Your task to perform on an android device: open the mobile data screen to see how much data has been used Image 0: 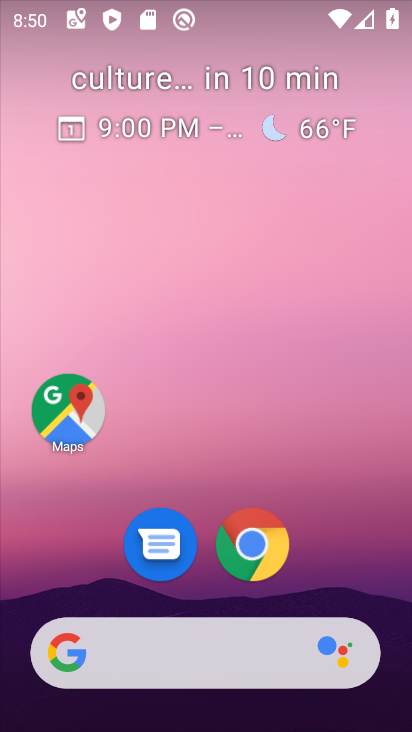
Step 0: drag from (226, 598) to (327, 17)
Your task to perform on an android device: open the mobile data screen to see how much data has been used Image 1: 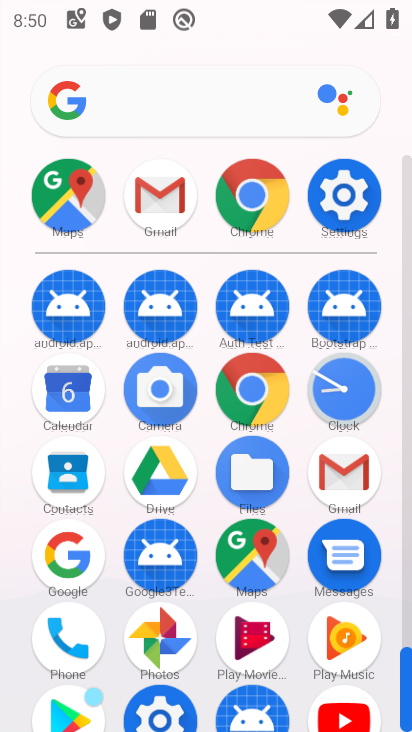
Step 1: click (337, 194)
Your task to perform on an android device: open the mobile data screen to see how much data has been used Image 2: 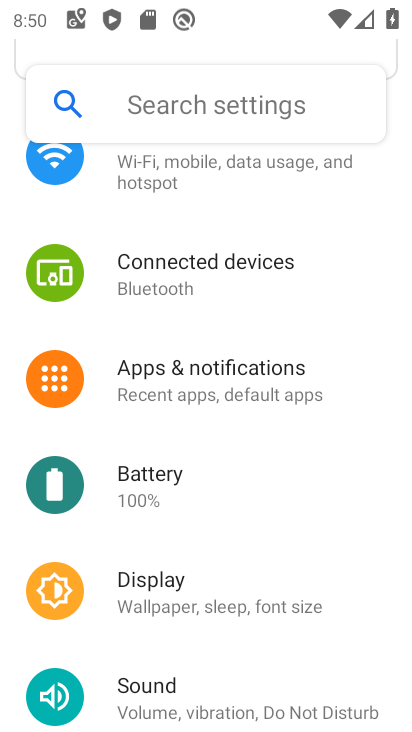
Step 2: drag from (308, 207) to (372, 724)
Your task to perform on an android device: open the mobile data screen to see how much data has been used Image 3: 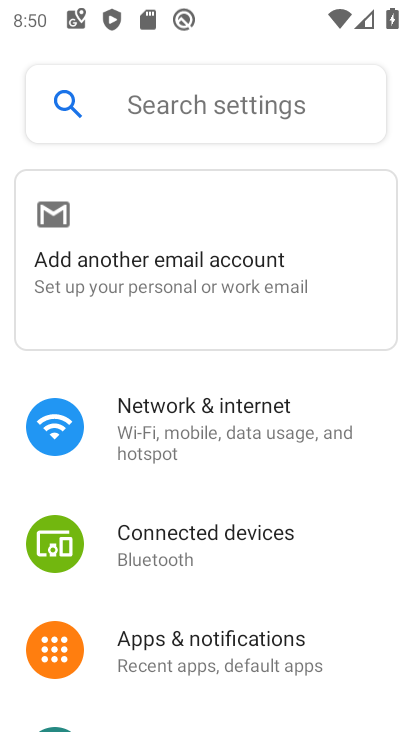
Step 3: click (156, 448)
Your task to perform on an android device: open the mobile data screen to see how much data has been used Image 4: 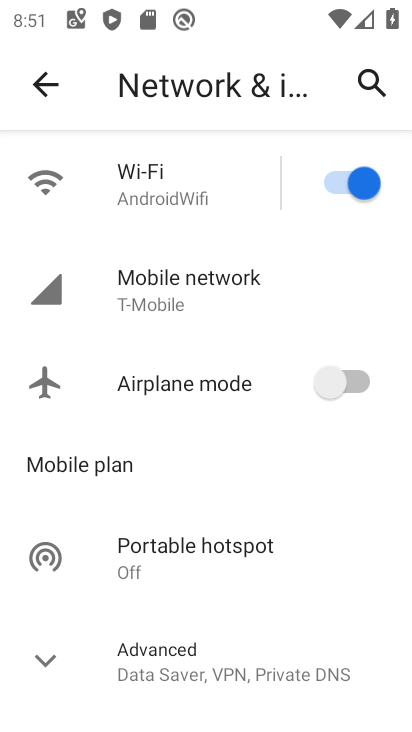
Step 4: click (155, 265)
Your task to perform on an android device: open the mobile data screen to see how much data has been used Image 5: 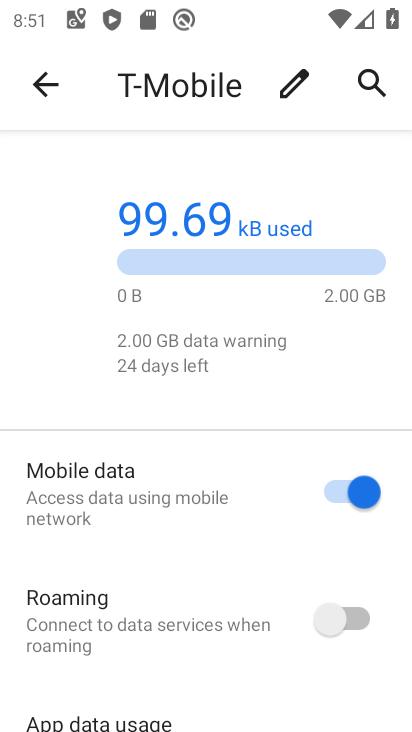
Step 5: task complete